Your task to perform on an android device: change the clock display to analog Image 0: 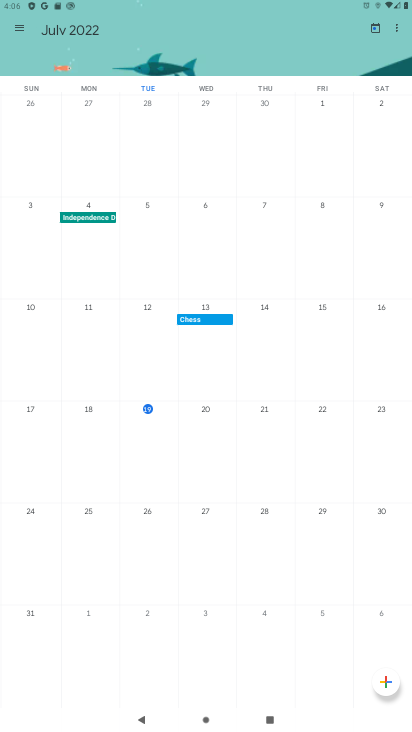
Step 0: press home button
Your task to perform on an android device: change the clock display to analog Image 1: 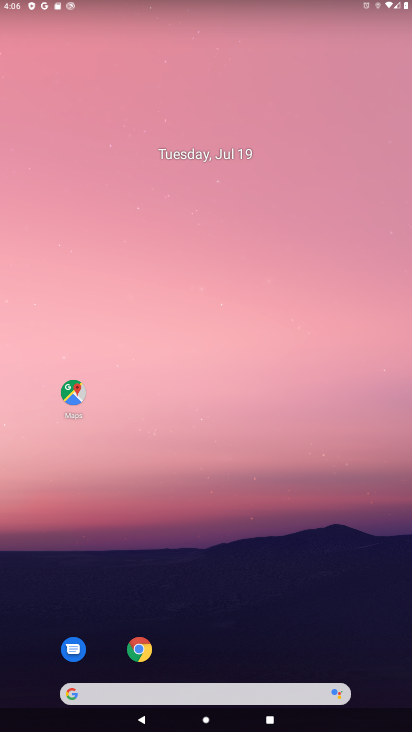
Step 1: drag from (234, 614) to (187, 102)
Your task to perform on an android device: change the clock display to analog Image 2: 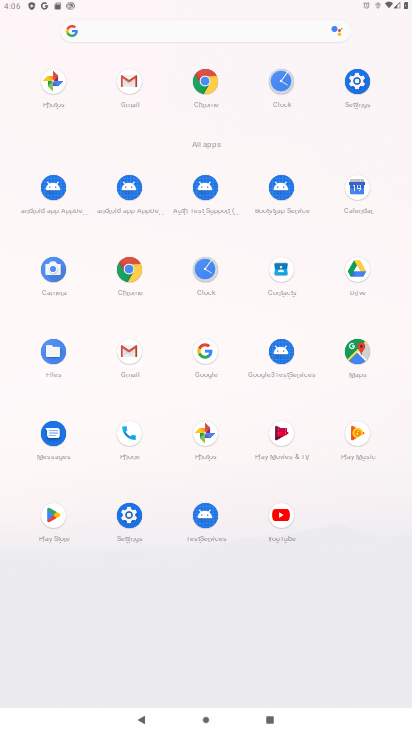
Step 2: click (283, 77)
Your task to perform on an android device: change the clock display to analog Image 3: 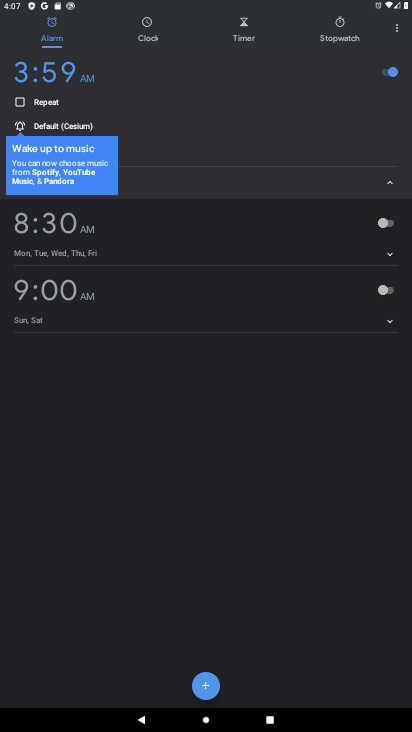
Step 3: click (398, 28)
Your task to perform on an android device: change the clock display to analog Image 4: 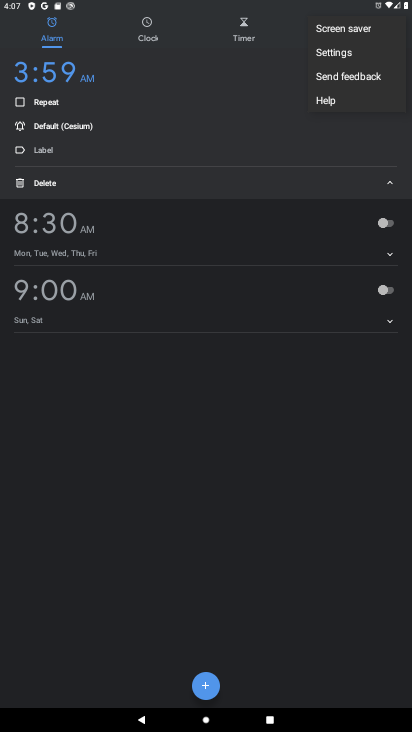
Step 4: click (360, 57)
Your task to perform on an android device: change the clock display to analog Image 5: 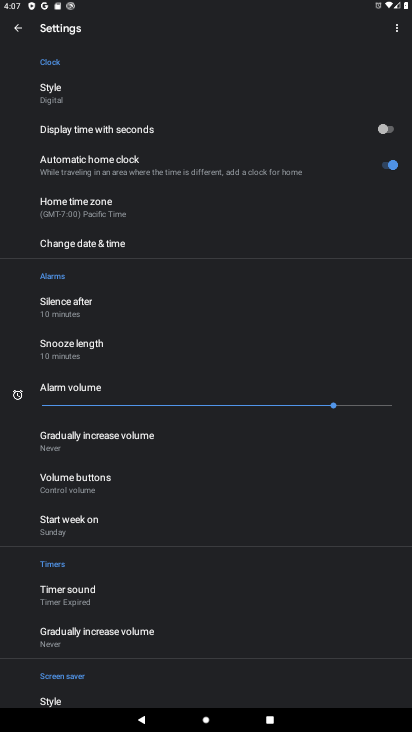
Step 5: click (151, 93)
Your task to perform on an android device: change the clock display to analog Image 6: 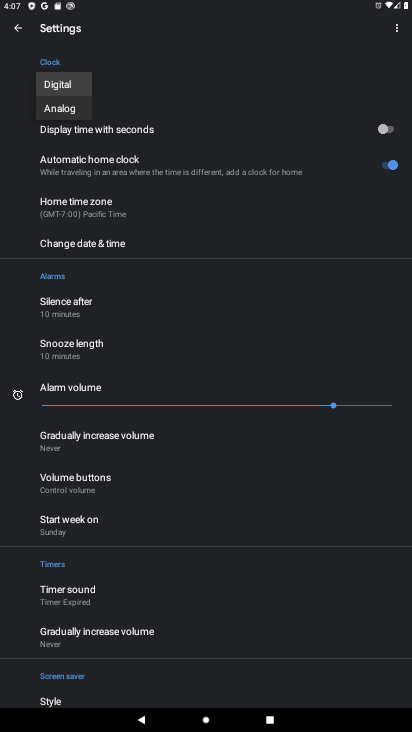
Step 6: click (85, 110)
Your task to perform on an android device: change the clock display to analog Image 7: 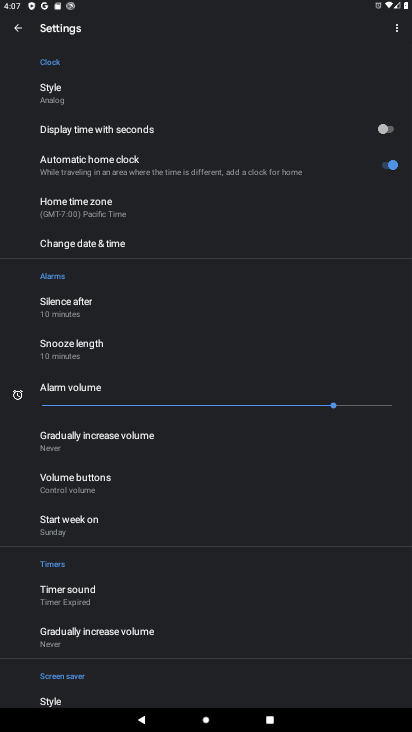
Step 7: task complete